Your task to perform on an android device: Open Youtube and go to "Your channel" Image 0: 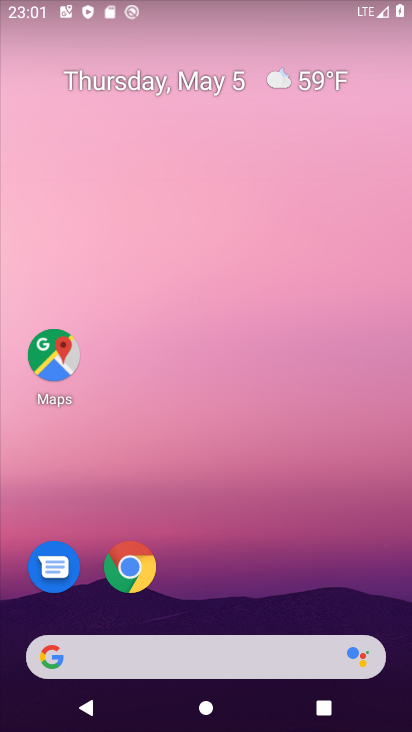
Step 0: drag from (172, 630) to (289, 65)
Your task to perform on an android device: Open Youtube and go to "Your channel" Image 1: 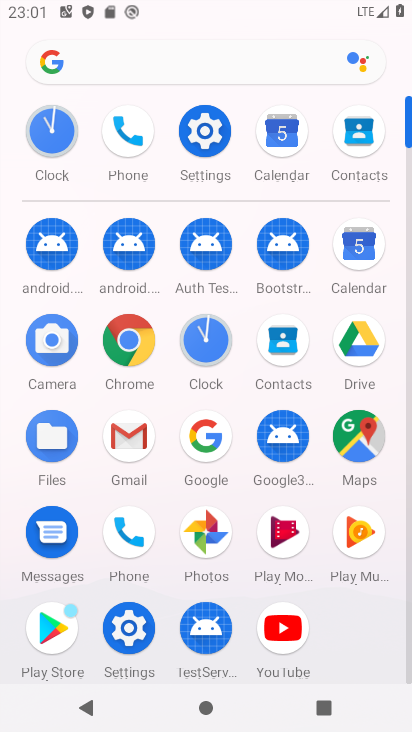
Step 1: click (283, 627)
Your task to perform on an android device: Open Youtube and go to "Your channel" Image 2: 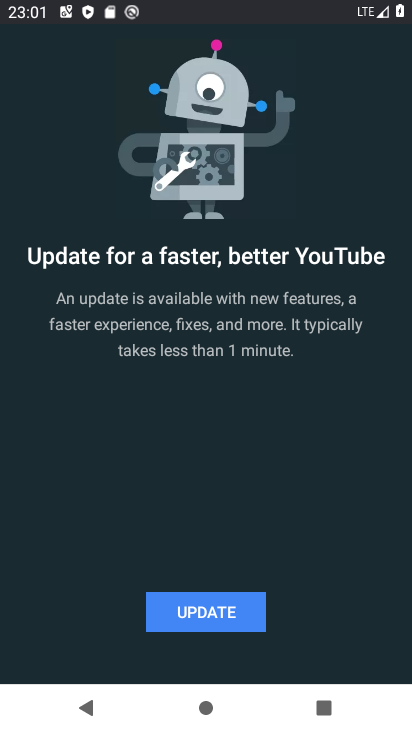
Step 2: click (192, 616)
Your task to perform on an android device: Open Youtube and go to "Your channel" Image 3: 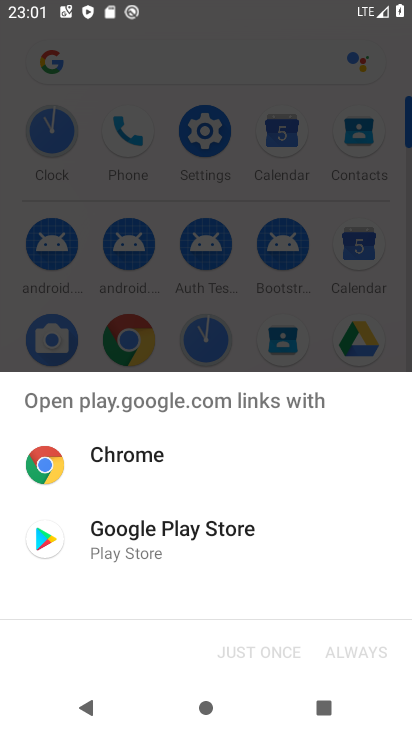
Step 3: click (163, 545)
Your task to perform on an android device: Open Youtube and go to "Your channel" Image 4: 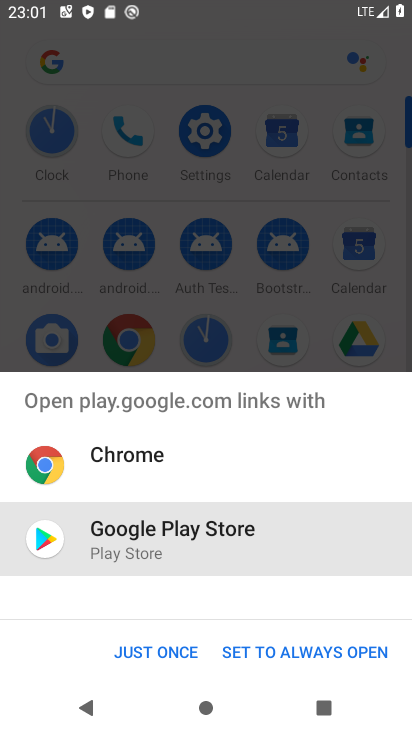
Step 4: click (147, 648)
Your task to perform on an android device: Open Youtube and go to "Your channel" Image 5: 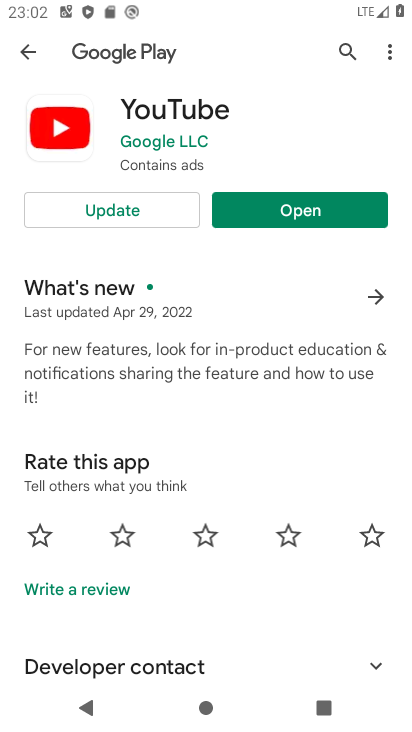
Step 5: click (93, 206)
Your task to perform on an android device: Open Youtube and go to "Your channel" Image 6: 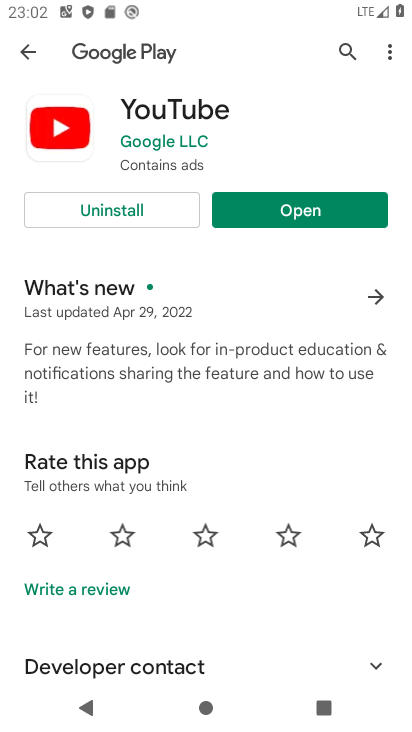
Step 6: click (291, 212)
Your task to perform on an android device: Open Youtube and go to "Your channel" Image 7: 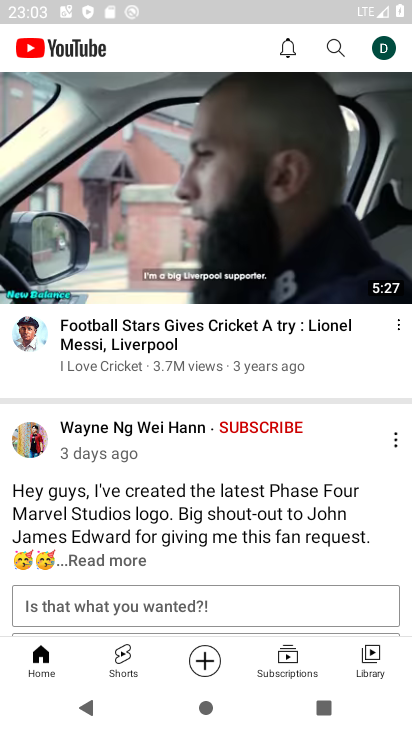
Step 7: click (379, 51)
Your task to perform on an android device: Open Youtube and go to "Your channel" Image 8: 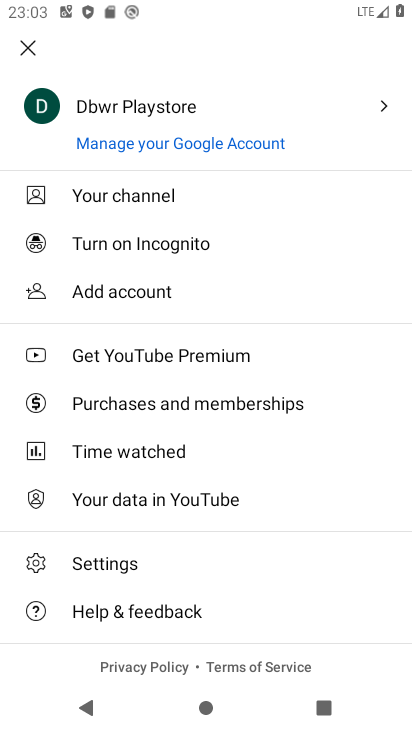
Step 8: click (139, 199)
Your task to perform on an android device: Open Youtube and go to "Your channel" Image 9: 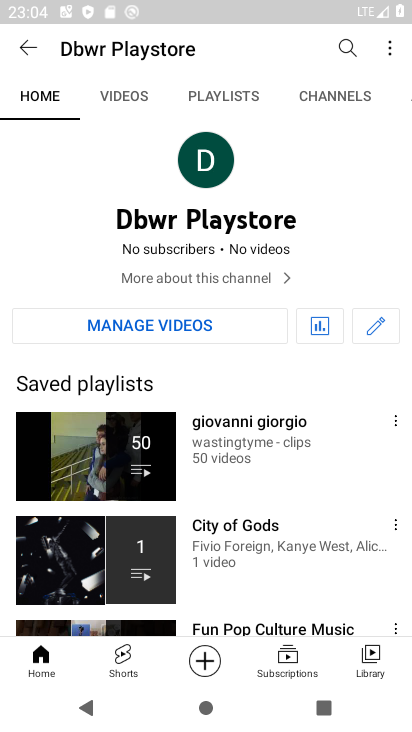
Step 9: task complete